Your task to perform on an android device: Open the phone app and click the voicemail tab. Image 0: 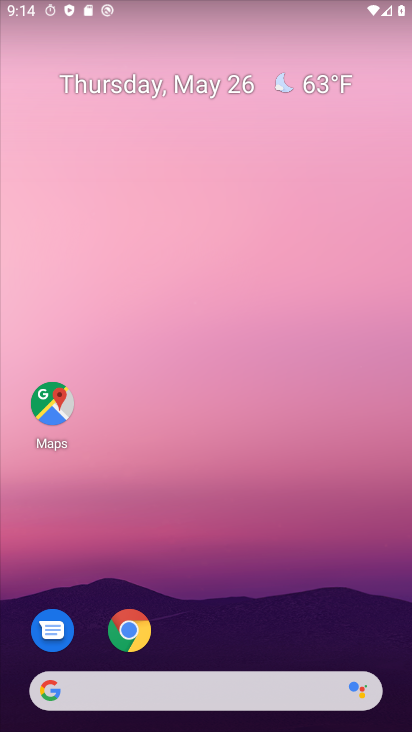
Step 0: drag from (295, 710) to (243, 35)
Your task to perform on an android device: Open the phone app and click the voicemail tab. Image 1: 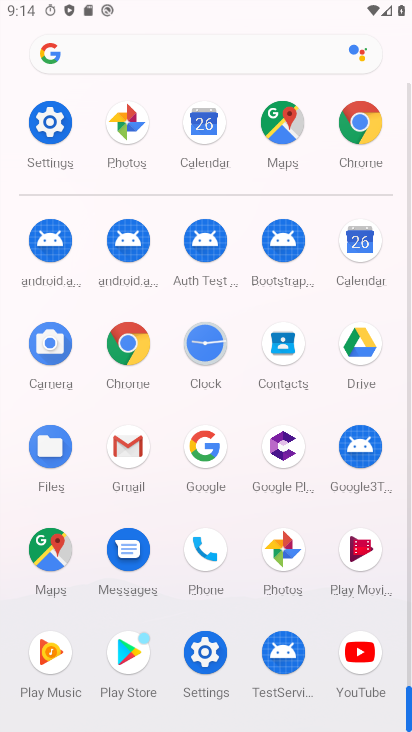
Step 1: click (206, 551)
Your task to perform on an android device: Open the phone app and click the voicemail tab. Image 2: 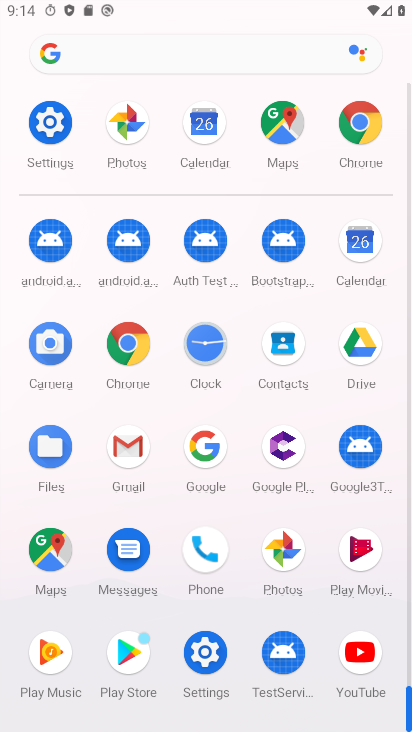
Step 2: click (206, 551)
Your task to perform on an android device: Open the phone app and click the voicemail tab. Image 3: 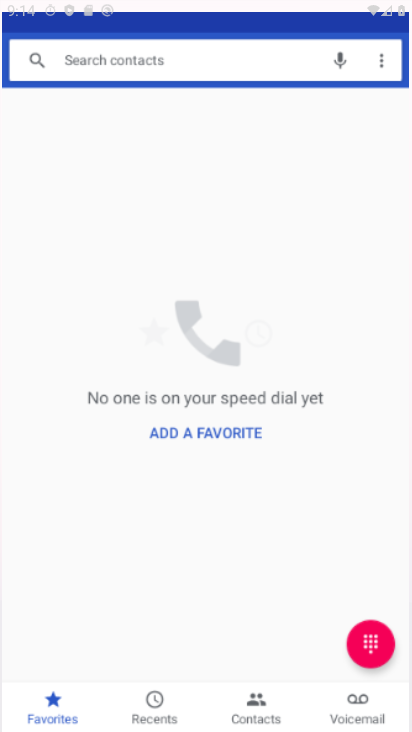
Step 3: click (206, 551)
Your task to perform on an android device: Open the phone app and click the voicemail tab. Image 4: 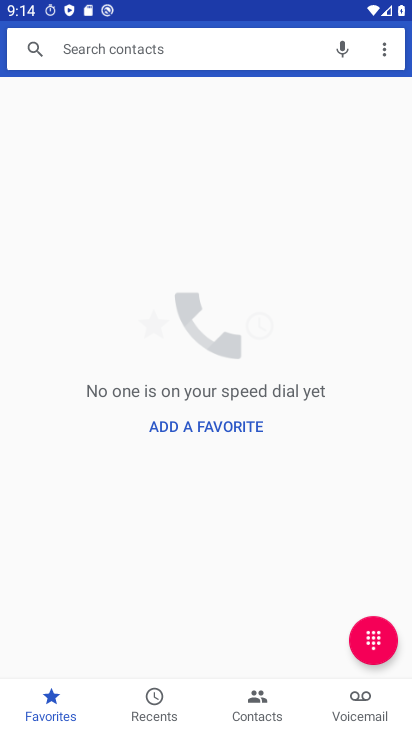
Step 4: click (356, 696)
Your task to perform on an android device: Open the phone app and click the voicemail tab. Image 5: 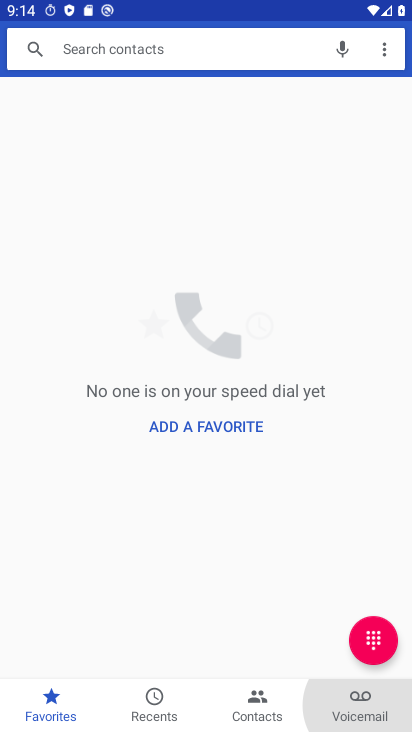
Step 5: click (355, 691)
Your task to perform on an android device: Open the phone app and click the voicemail tab. Image 6: 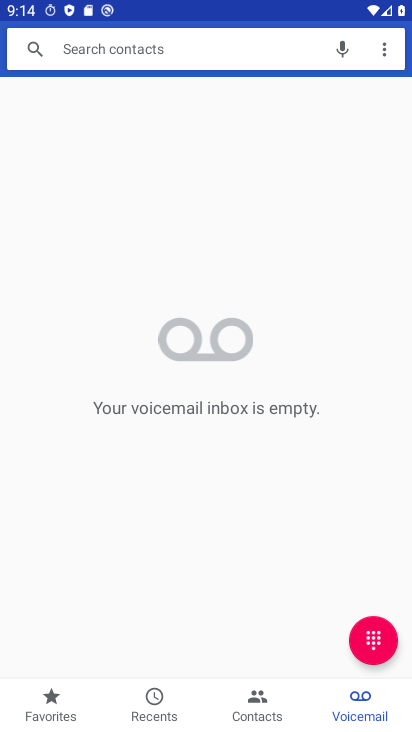
Step 6: task complete